Your task to perform on an android device: turn on bluetooth scan Image 0: 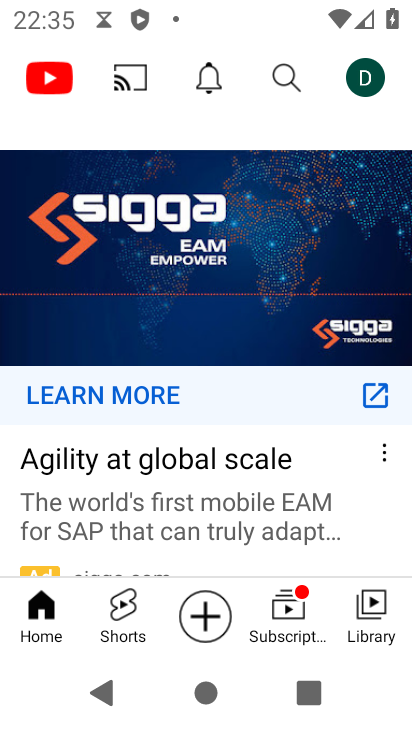
Step 0: press home button
Your task to perform on an android device: turn on bluetooth scan Image 1: 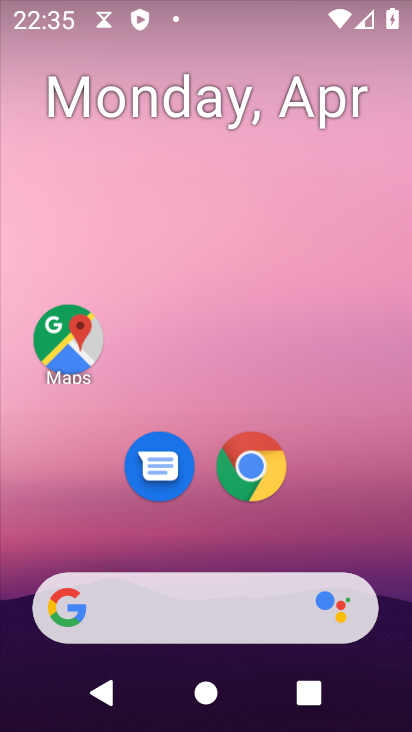
Step 1: drag from (225, 508) to (261, 46)
Your task to perform on an android device: turn on bluetooth scan Image 2: 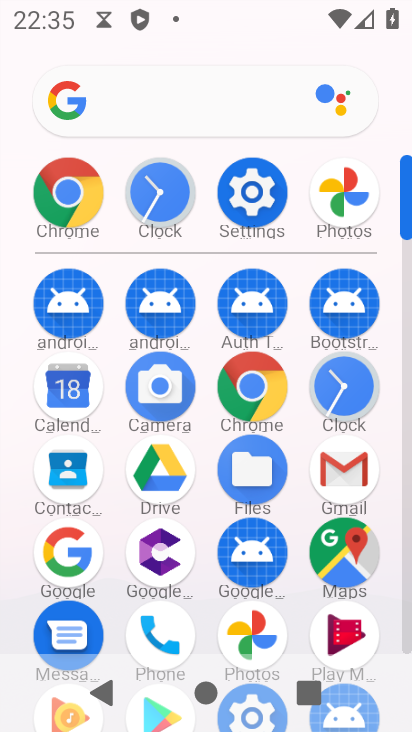
Step 2: click (254, 187)
Your task to perform on an android device: turn on bluetooth scan Image 3: 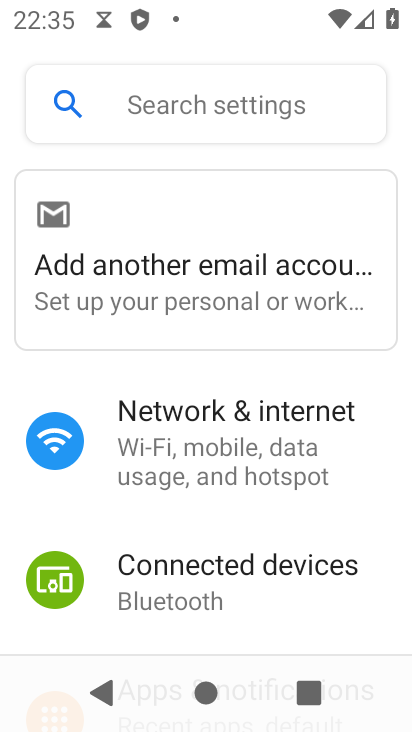
Step 3: drag from (197, 511) to (175, 348)
Your task to perform on an android device: turn on bluetooth scan Image 4: 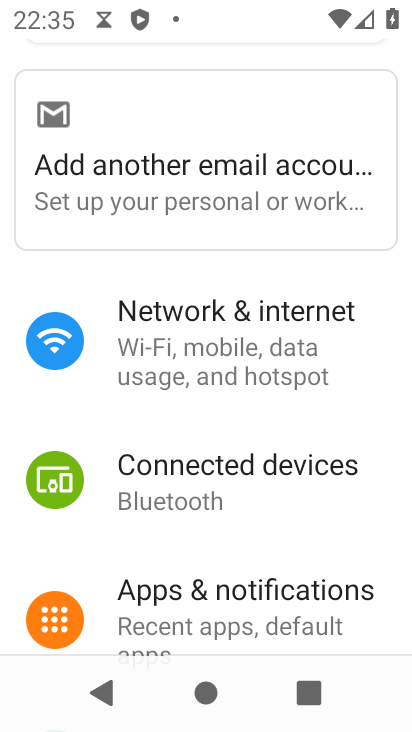
Step 4: drag from (161, 547) to (175, 439)
Your task to perform on an android device: turn on bluetooth scan Image 5: 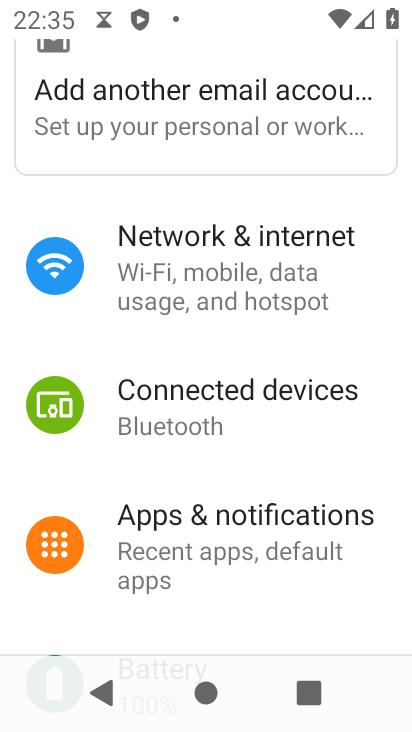
Step 5: drag from (246, 591) to (237, 441)
Your task to perform on an android device: turn on bluetooth scan Image 6: 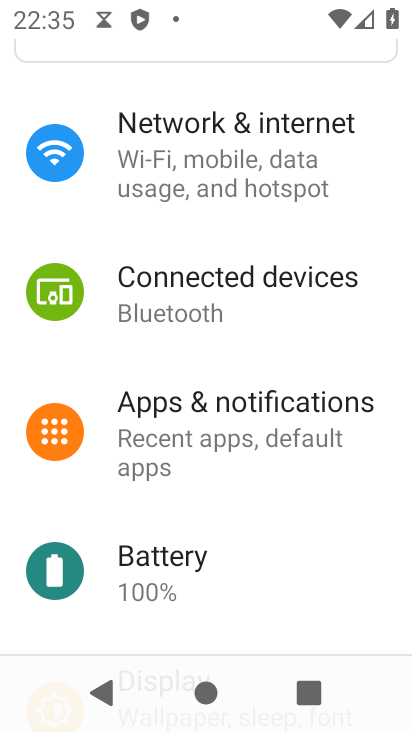
Step 6: drag from (242, 557) to (256, 446)
Your task to perform on an android device: turn on bluetooth scan Image 7: 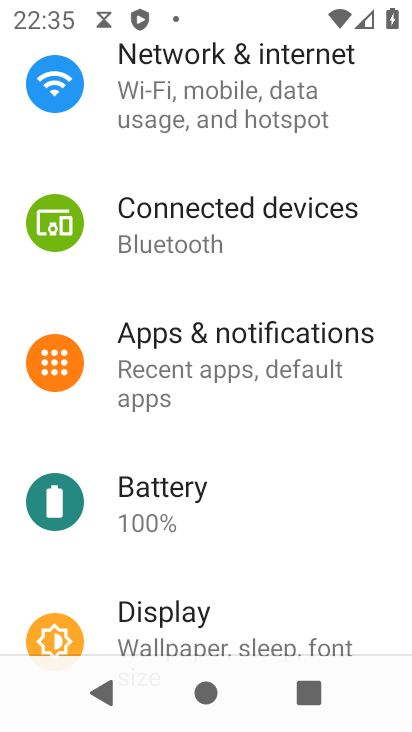
Step 7: drag from (280, 549) to (289, 480)
Your task to perform on an android device: turn on bluetooth scan Image 8: 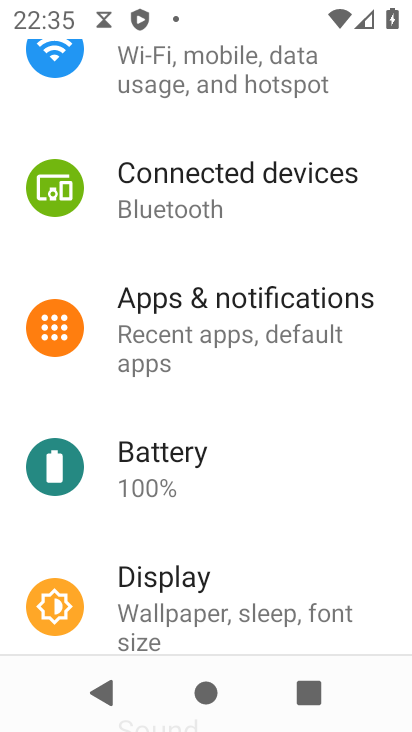
Step 8: drag from (312, 583) to (297, 471)
Your task to perform on an android device: turn on bluetooth scan Image 9: 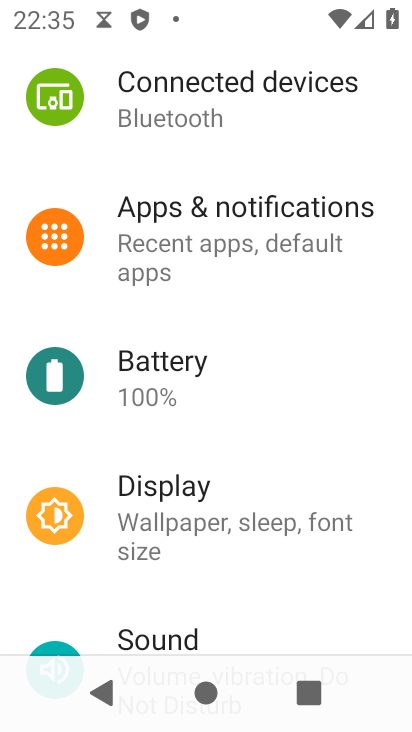
Step 9: drag from (272, 580) to (265, 470)
Your task to perform on an android device: turn on bluetooth scan Image 10: 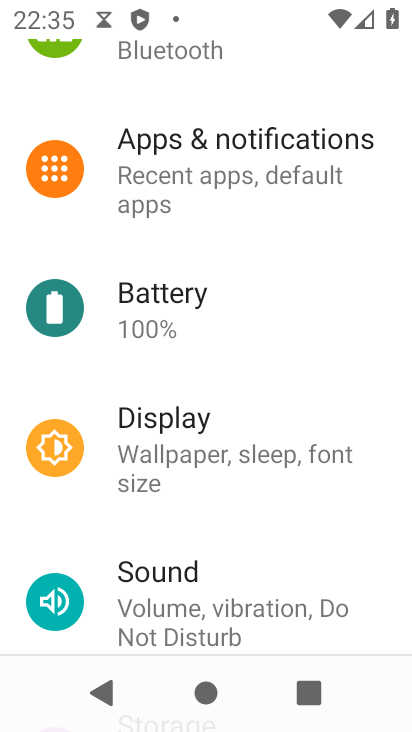
Step 10: drag from (273, 579) to (266, 482)
Your task to perform on an android device: turn on bluetooth scan Image 11: 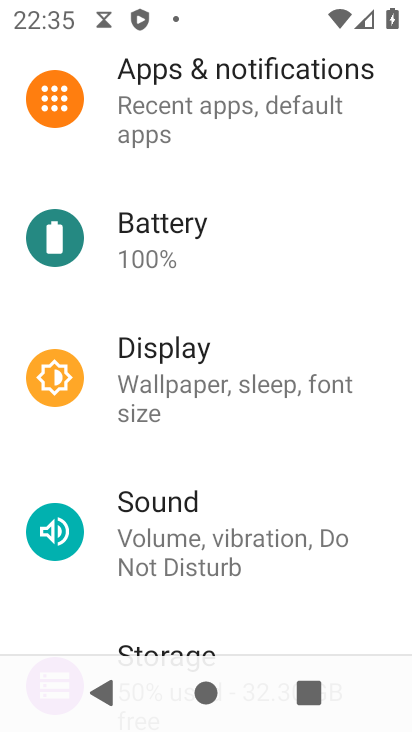
Step 11: drag from (258, 585) to (269, 482)
Your task to perform on an android device: turn on bluetooth scan Image 12: 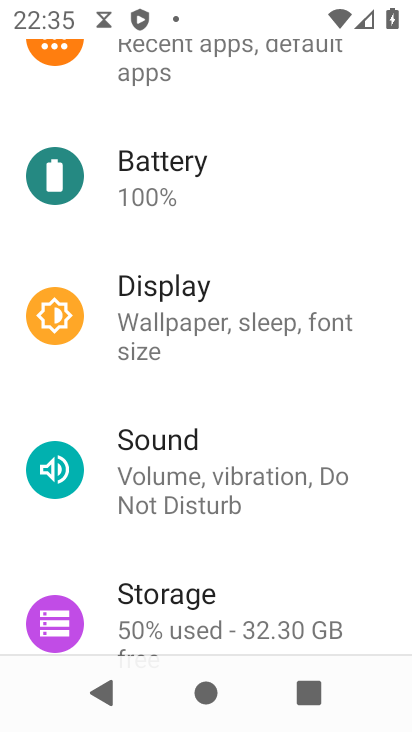
Step 12: drag from (231, 589) to (273, 461)
Your task to perform on an android device: turn on bluetooth scan Image 13: 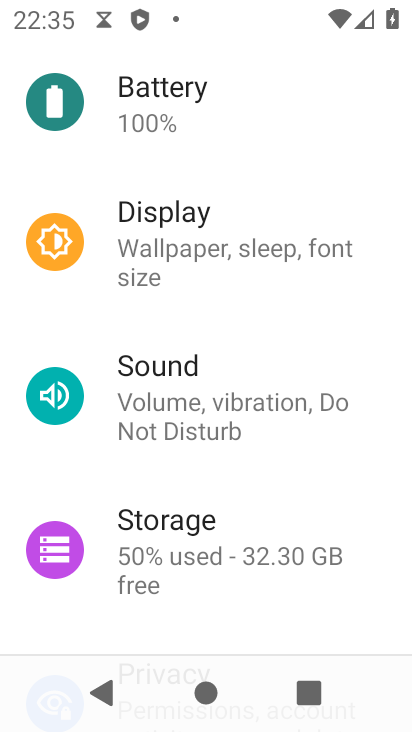
Step 13: drag from (258, 600) to (260, 480)
Your task to perform on an android device: turn on bluetooth scan Image 14: 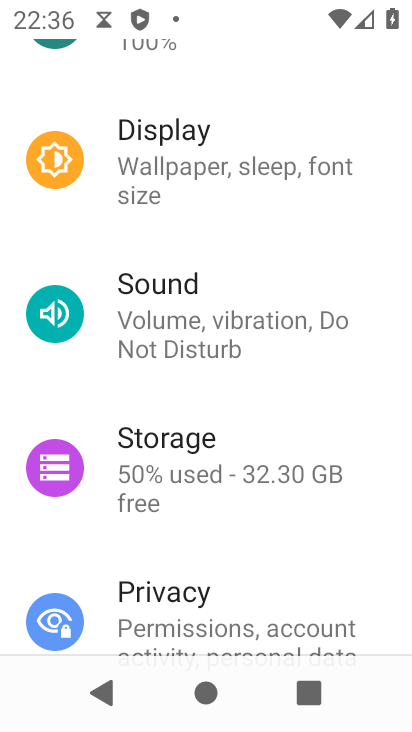
Step 14: drag from (239, 591) to (265, 424)
Your task to perform on an android device: turn on bluetooth scan Image 15: 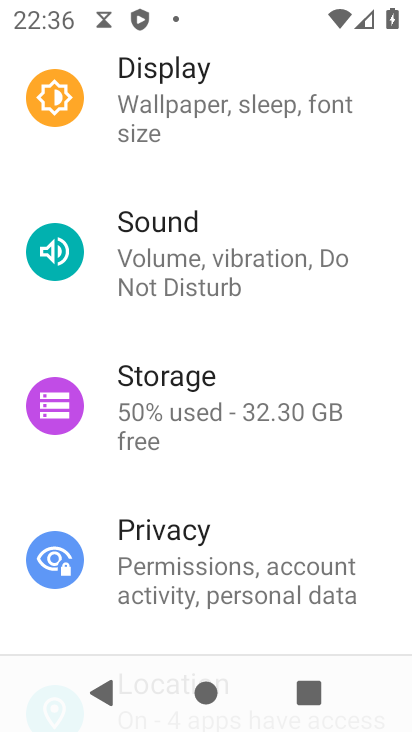
Step 15: drag from (313, 620) to (308, 414)
Your task to perform on an android device: turn on bluetooth scan Image 16: 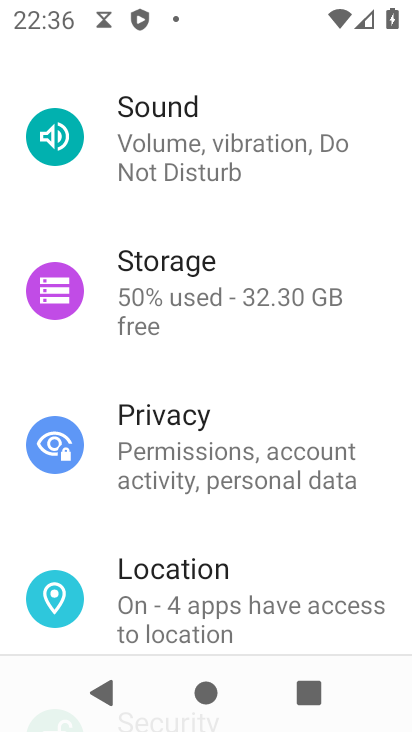
Step 16: drag from (268, 540) to (256, 382)
Your task to perform on an android device: turn on bluetooth scan Image 17: 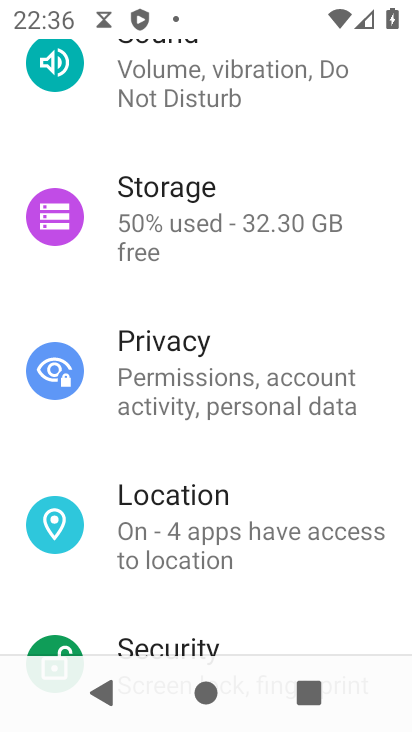
Step 17: click (191, 502)
Your task to perform on an android device: turn on bluetooth scan Image 18: 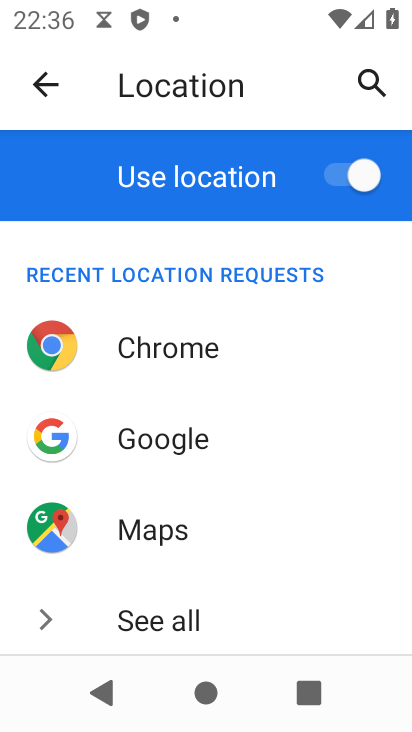
Step 18: drag from (251, 524) to (270, 359)
Your task to perform on an android device: turn on bluetooth scan Image 19: 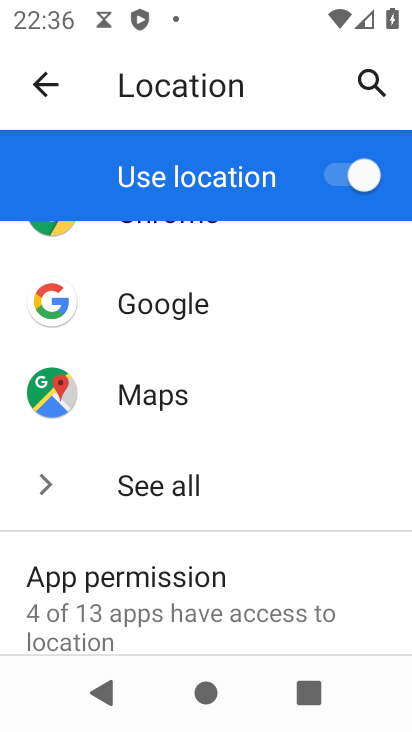
Step 19: drag from (249, 569) to (259, 414)
Your task to perform on an android device: turn on bluetooth scan Image 20: 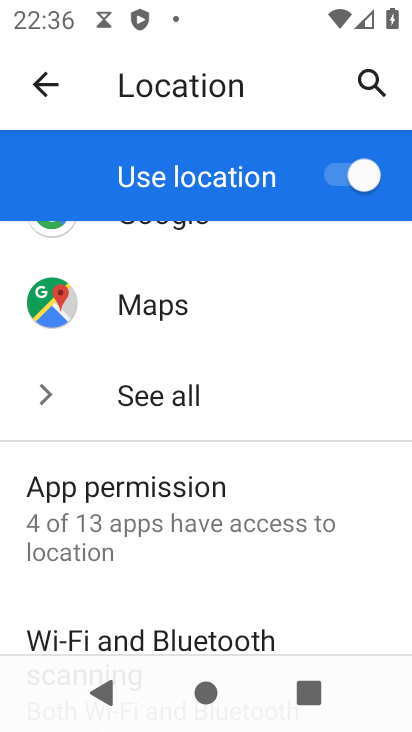
Step 20: drag from (241, 578) to (252, 414)
Your task to perform on an android device: turn on bluetooth scan Image 21: 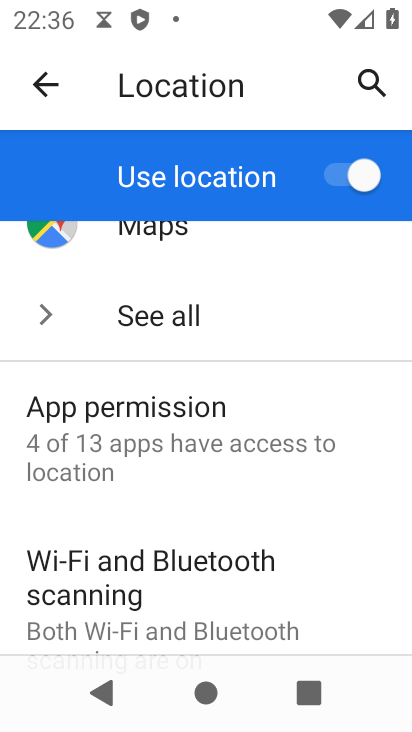
Step 21: click (250, 574)
Your task to perform on an android device: turn on bluetooth scan Image 22: 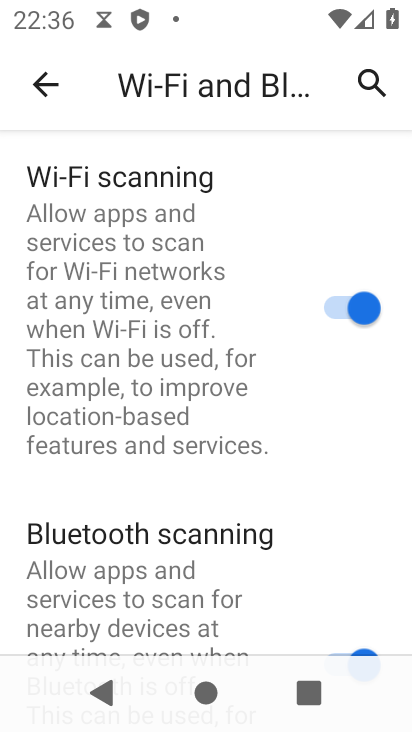
Step 22: task complete